Your task to perform on an android device: open a new tab in the chrome app Image 0: 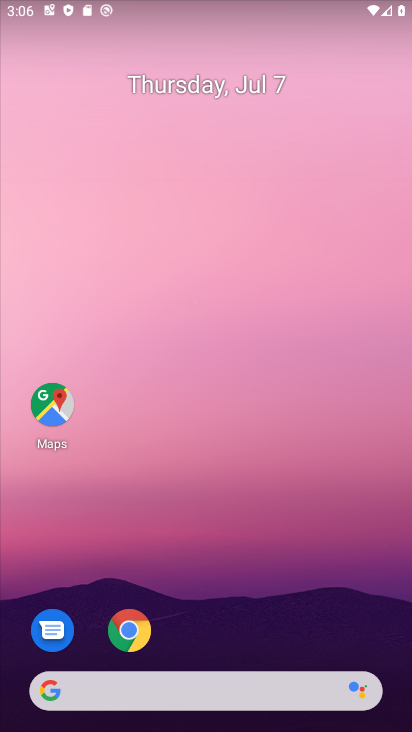
Step 0: click (133, 625)
Your task to perform on an android device: open a new tab in the chrome app Image 1: 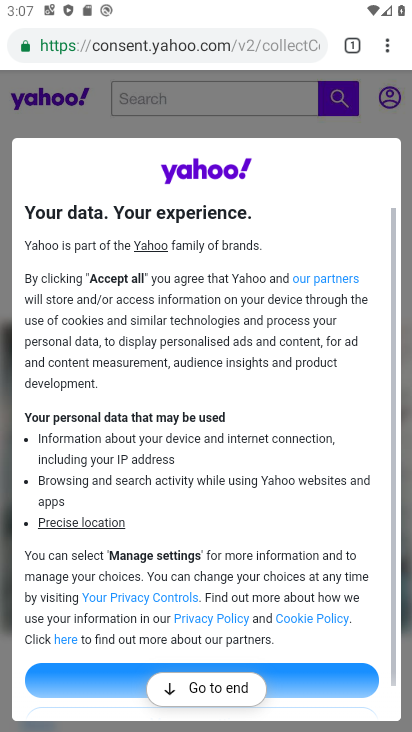
Step 1: click (389, 50)
Your task to perform on an android device: open a new tab in the chrome app Image 2: 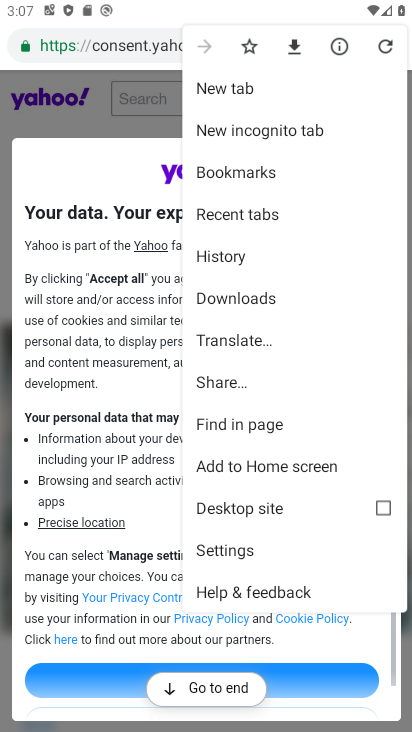
Step 2: click (259, 92)
Your task to perform on an android device: open a new tab in the chrome app Image 3: 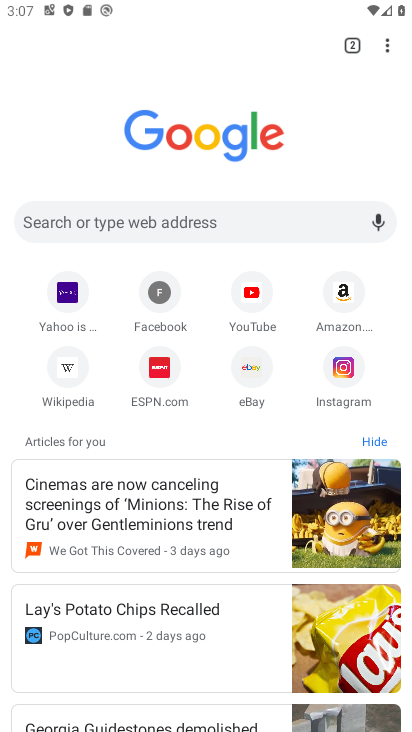
Step 3: task complete